Your task to perform on an android device: turn off smart reply in the gmail app Image 0: 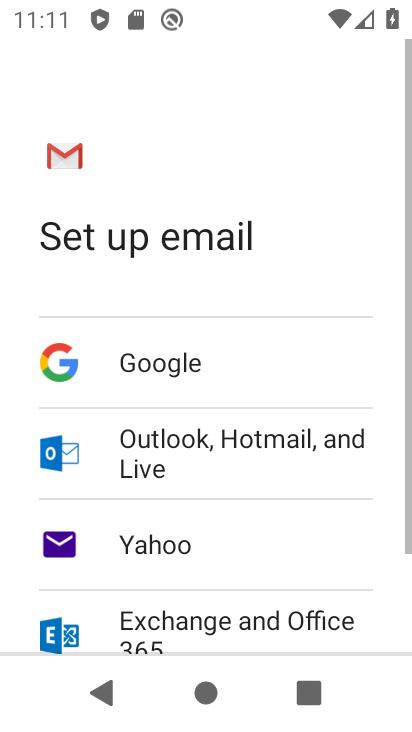
Step 0: press home button
Your task to perform on an android device: turn off smart reply in the gmail app Image 1: 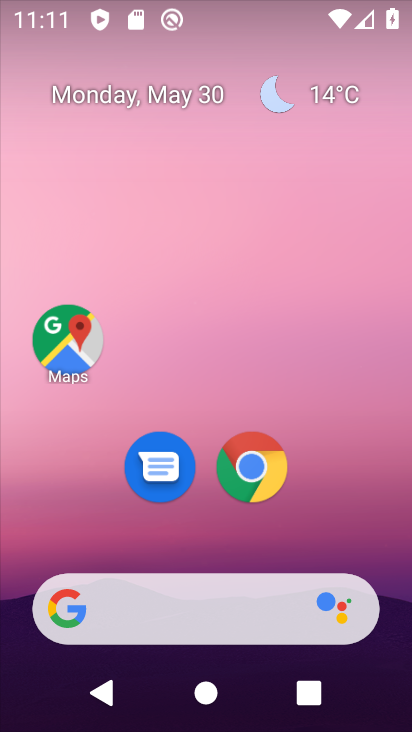
Step 1: drag from (212, 455) to (265, 67)
Your task to perform on an android device: turn off smart reply in the gmail app Image 2: 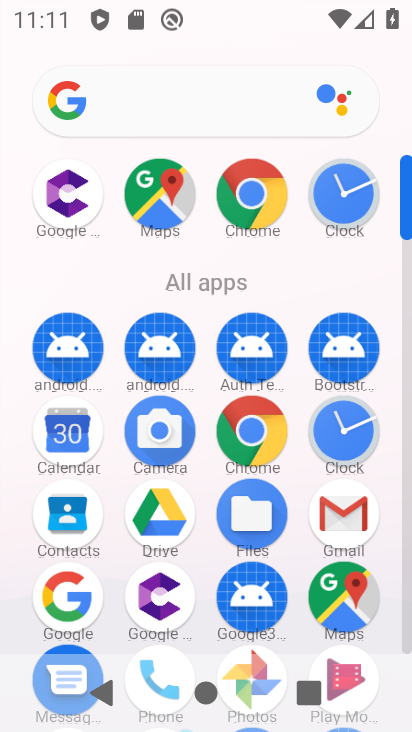
Step 2: click (327, 509)
Your task to perform on an android device: turn off smart reply in the gmail app Image 3: 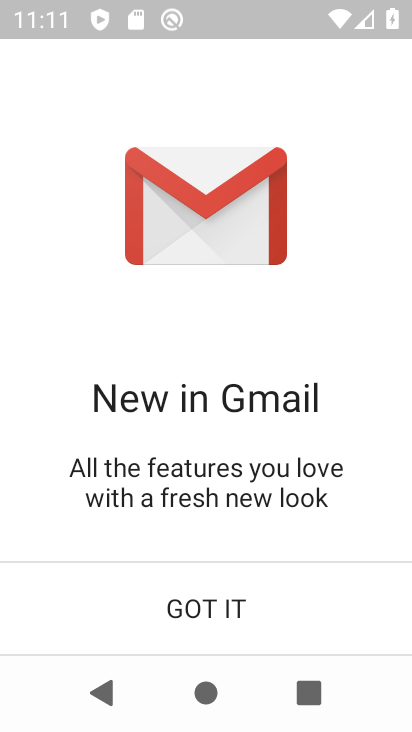
Step 3: click (211, 589)
Your task to perform on an android device: turn off smart reply in the gmail app Image 4: 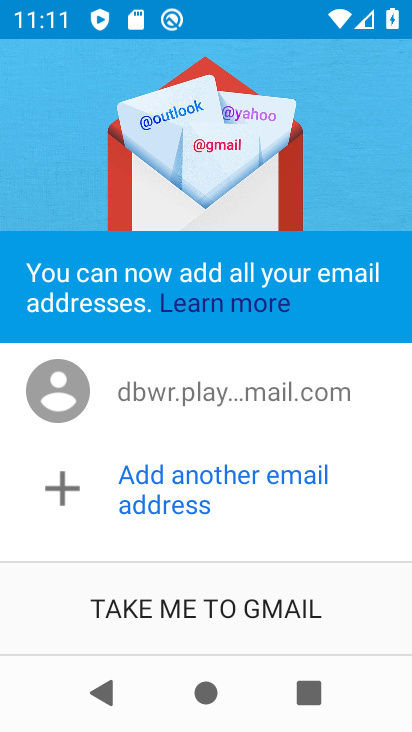
Step 4: click (202, 601)
Your task to perform on an android device: turn off smart reply in the gmail app Image 5: 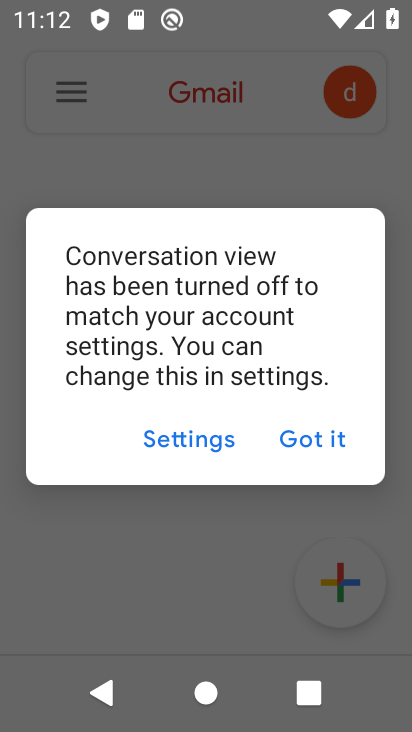
Step 5: click (318, 440)
Your task to perform on an android device: turn off smart reply in the gmail app Image 6: 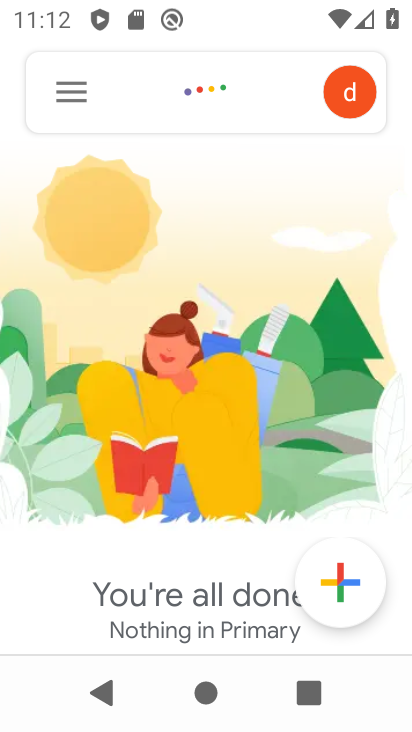
Step 6: click (71, 93)
Your task to perform on an android device: turn off smart reply in the gmail app Image 7: 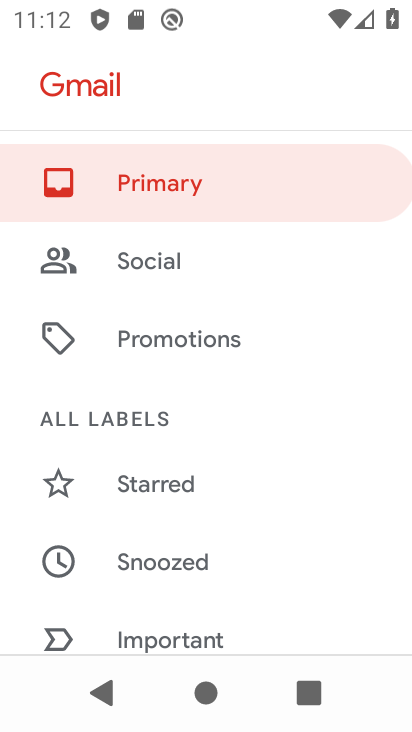
Step 7: drag from (169, 631) to (179, 180)
Your task to perform on an android device: turn off smart reply in the gmail app Image 8: 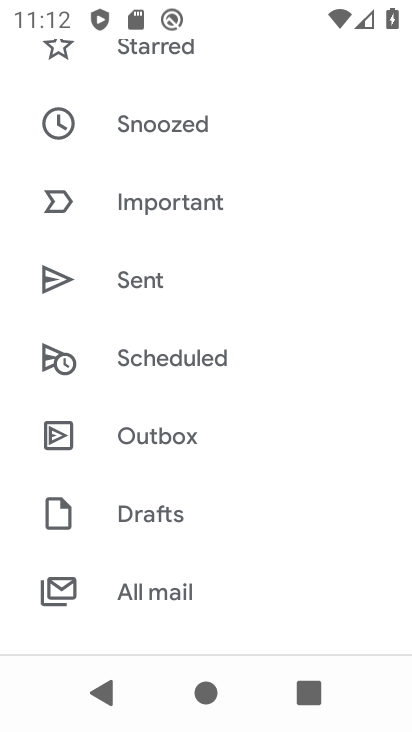
Step 8: drag from (181, 602) to (193, 192)
Your task to perform on an android device: turn off smart reply in the gmail app Image 9: 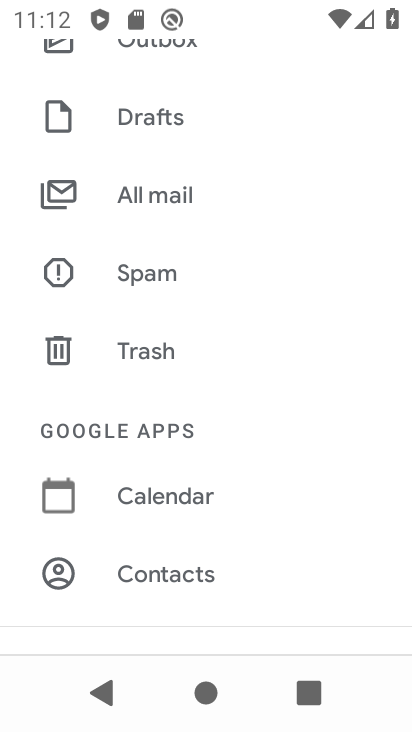
Step 9: drag from (159, 560) to (215, 176)
Your task to perform on an android device: turn off smart reply in the gmail app Image 10: 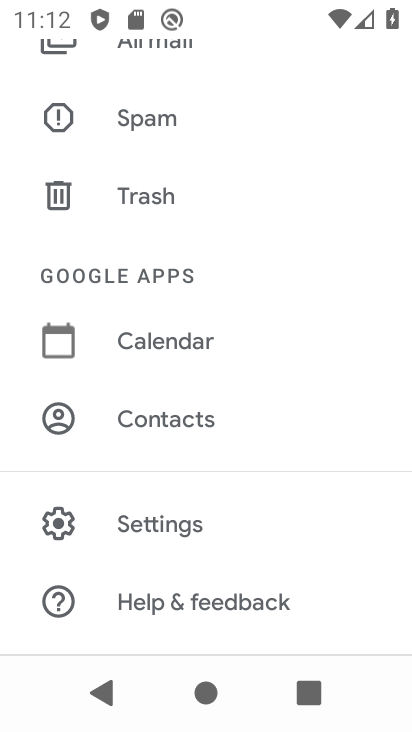
Step 10: click (114, 511)
Your task to perform on an android device: turn off smart reply in the gmail app Image 11: 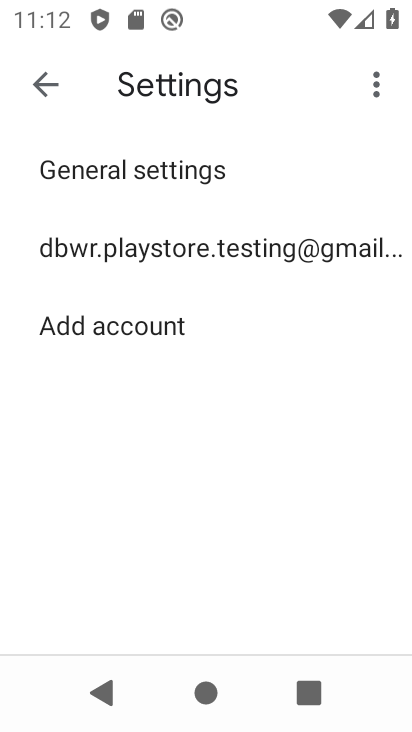
Step 11: click (115, 242)
Your task to perform on an android device: turn off smart reply in the gmail app Image 12: 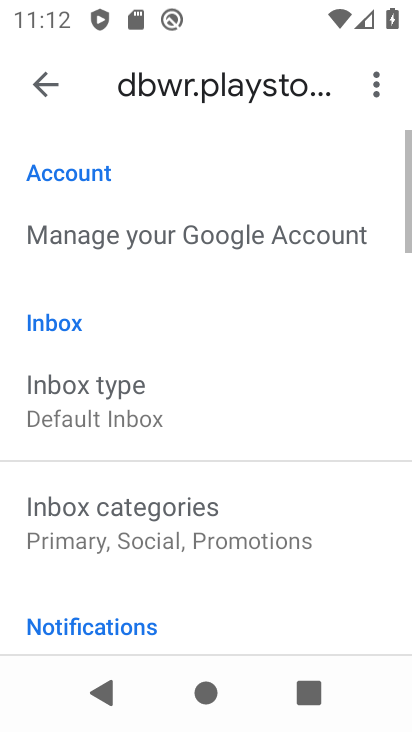
Step 12: drag from (150, 591) to (208, 270)
Your task to perform on an android device: turn off smart reply in the gmail app Image 13: 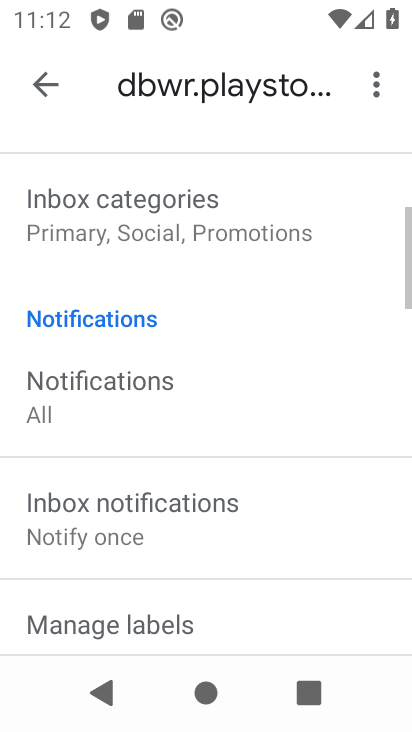
Step 13: drag from (200, 371) to (200, 166)
Your task to perform on an android device: turn off smart reply in the gmail app Image 14: 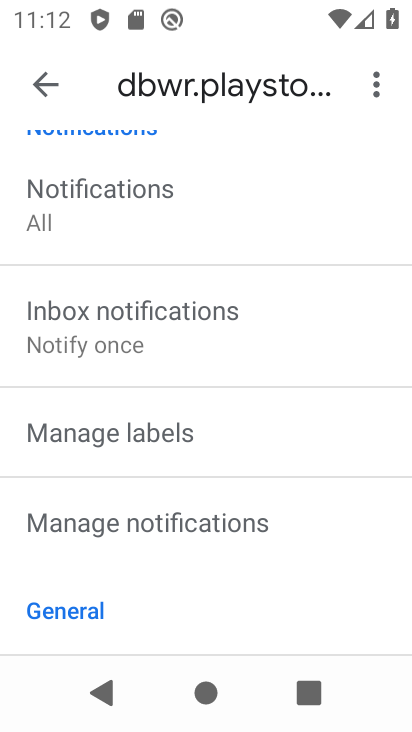
Step 14: drag from (169, 587) to (197, 137)
Your task to perform on an android device: turn off smart reply in the gmail app Image 15: 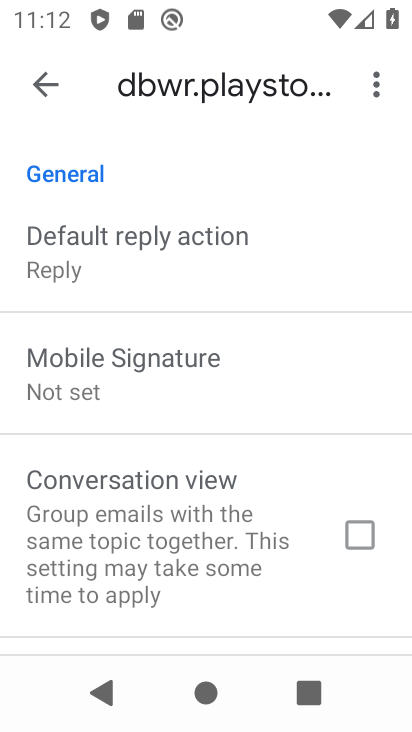
Step 15: drag from (132, 549) to (200, 127)
Your task to perform on an android device: turn off smart reply in the gmail app Image 16: 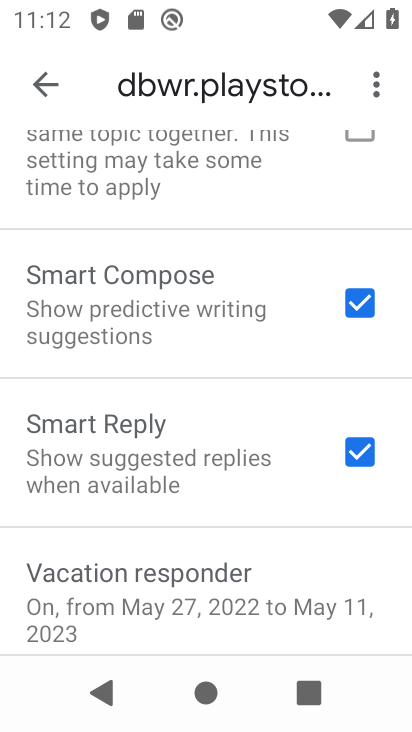
Step 16: click (363, 457)
Your task to perform on an android device: turn off smart reply in the gmail app Image 17: 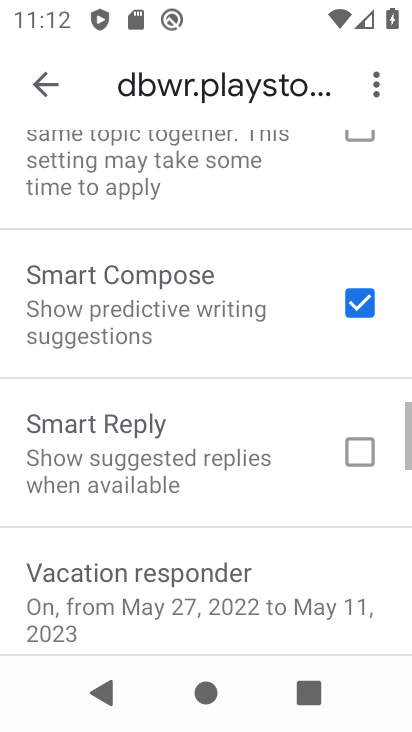
Step 17: task complete